Your task to perform on an android device: change your default location settings in chrome Image 0: 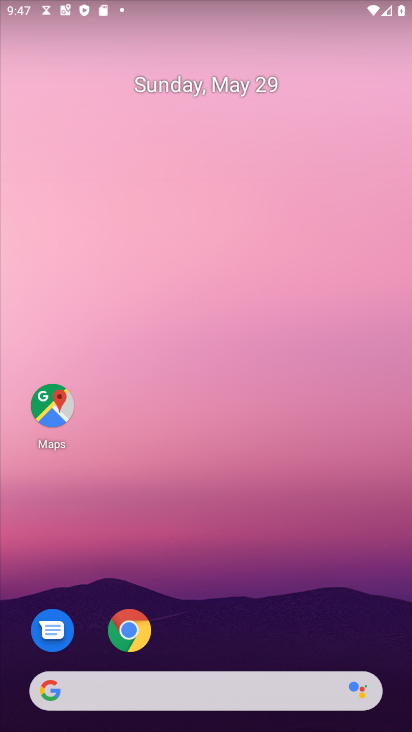
Step 0: click (136, 622)
Your task to perform on an android device: change your default location settings in chrome Image 1: 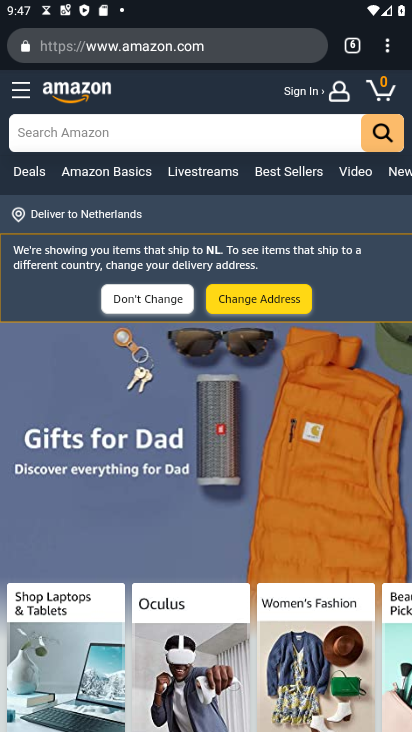
Step 1: click (389, 51)
Your task to perform on an android device: change your default location settings in chrome Image 2: 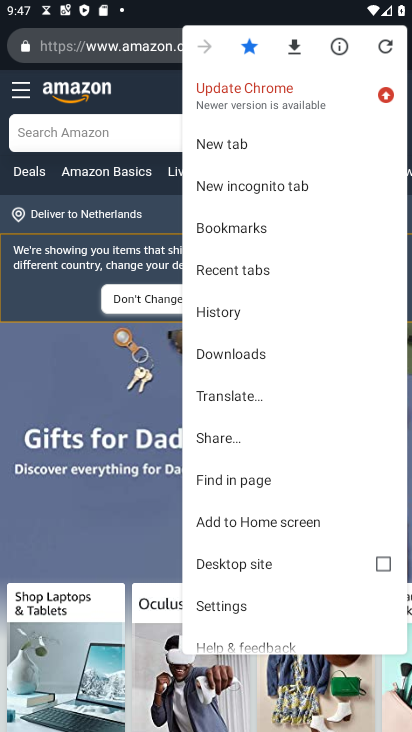
Step 2: click (205, 604)
Your task to perform on an android device: change your default location settings in chrome Image 3: 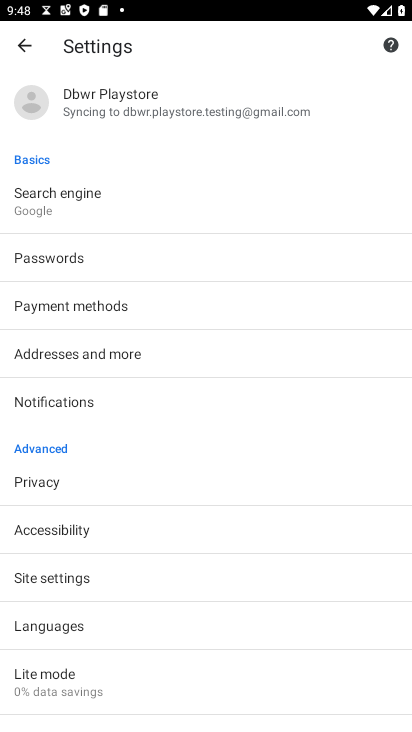
Step 3: click (102, 575)
Your task to perform on an android device: change your default location settings in chrome Image 4: 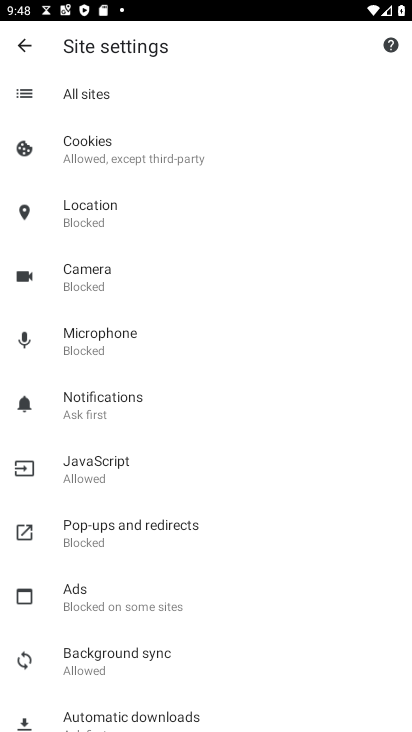
Step 4: click (103, 216)
Your task to perform on an android device: change your default location settings in chrome Image 5: 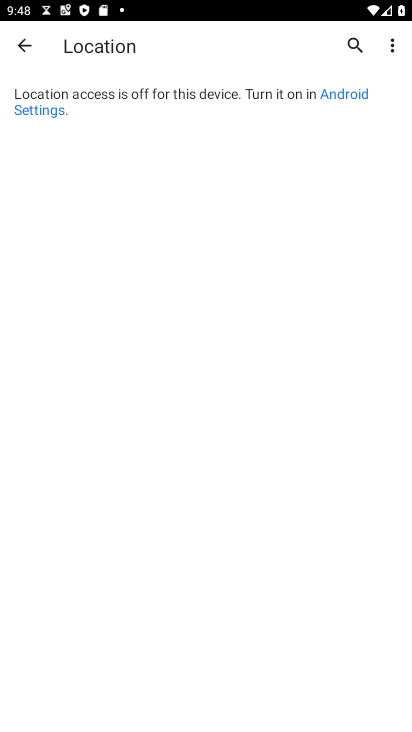
Step 5: task complete